Your task to perform on an android device: open chrome and create a bookmark for the current page Image 0: 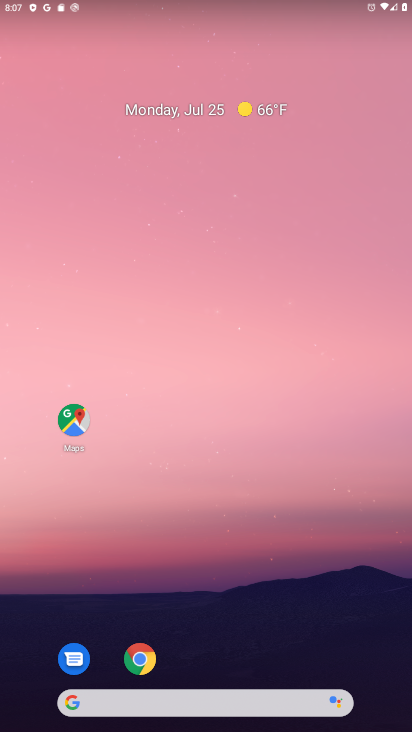
Step 0: click (150, 655)
Your task to perform on an android device: open chrome and create a bookmark for the current page Image 1: 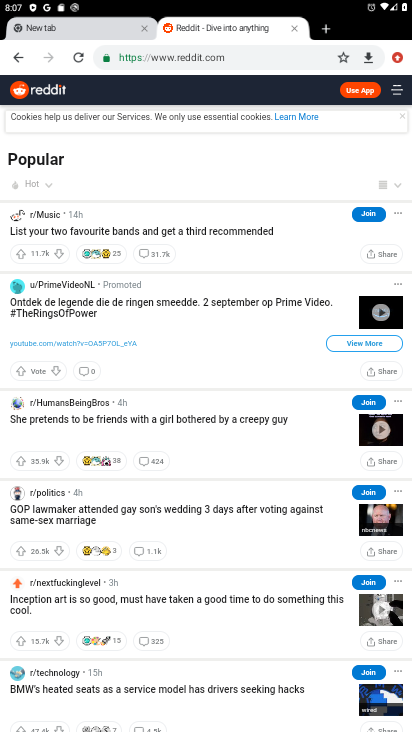
Step 1: click (394, 59)
Your task to perform on an android device: open chrome and create a bookmark for the current page Image 2: 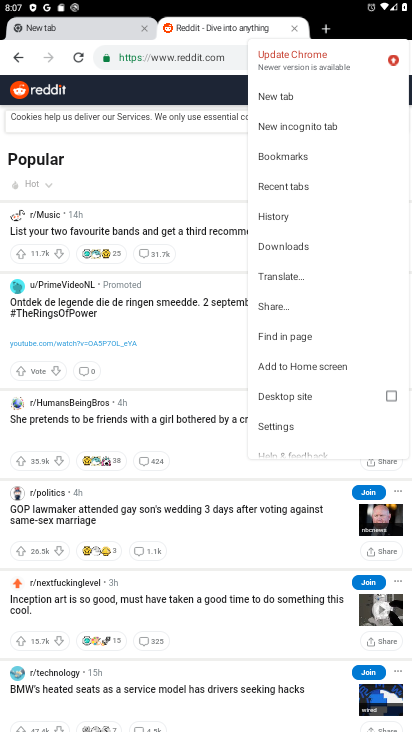
Step 2: click (196, 75)
Your task to perform on an android device: open chrome and create a bookmark for the current page Image 3: 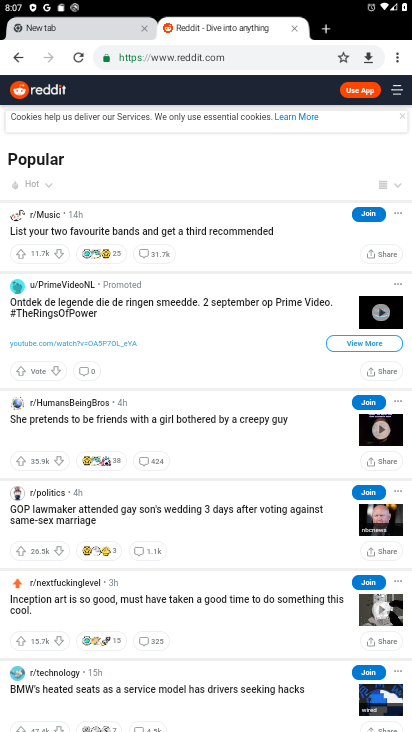
Step 3: click (344, 51)
Your task to perform on an android device: open chrome and create a bookmark for the current page Image 4: 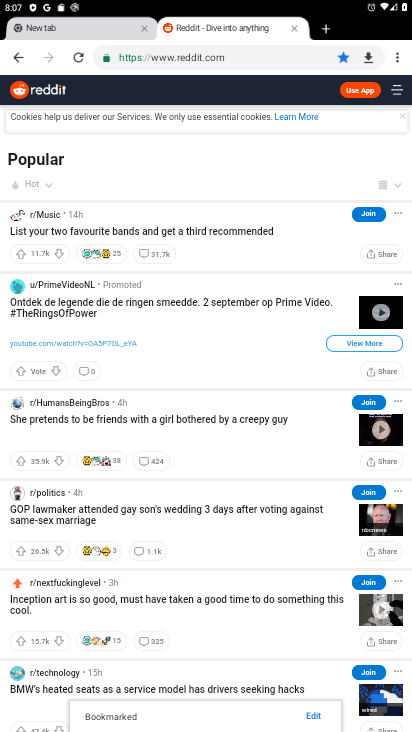
Step 4: task complete